Your task to perform on an android device: see sites visited before in the chrome app Image 0: 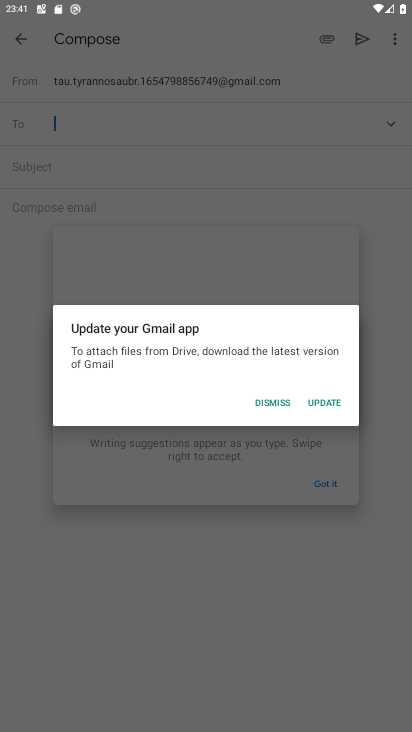
Step 0: press home button
Your task to perform on an android device: see sites visited before in the chrome app Image 1: 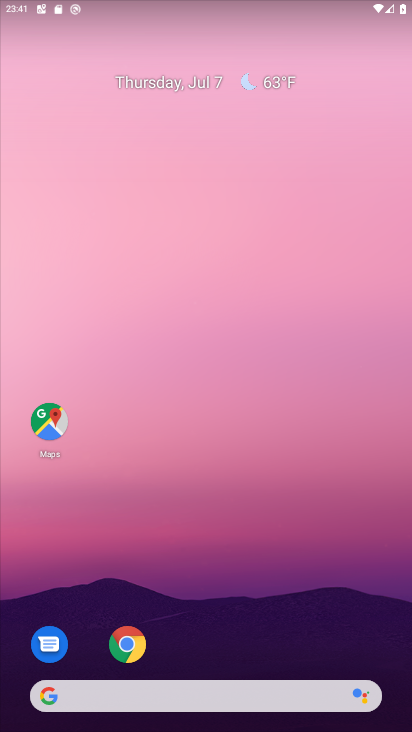
Step 1: click (127, 650)
Your task to perform on an android device: see sites visited before in the chrome app Image 2: 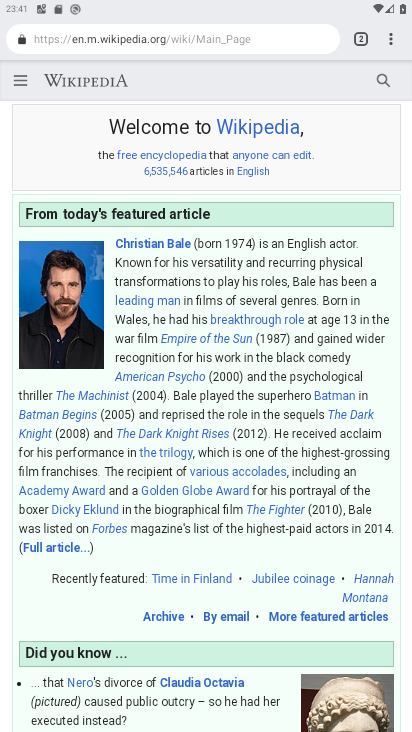
Step 2: click (389, 40)
Your task to perform on an android device: see sites visited before in the chrome app Image 3: 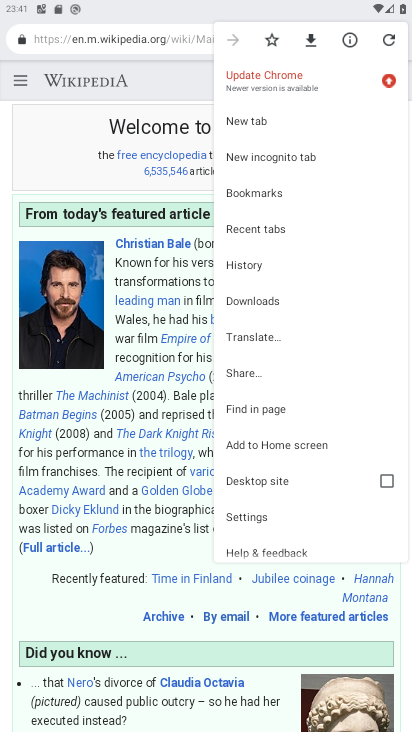
Step 3: click (241, 264)
Your task to perform on an android device: see sites visited before in the chrome app Image 4: 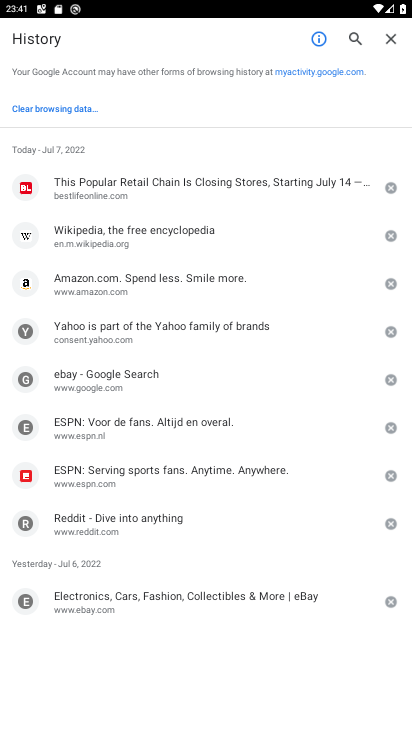
Step 4: task complete